Your task to perform on an android device: Go to Yahoo.com Image 0: 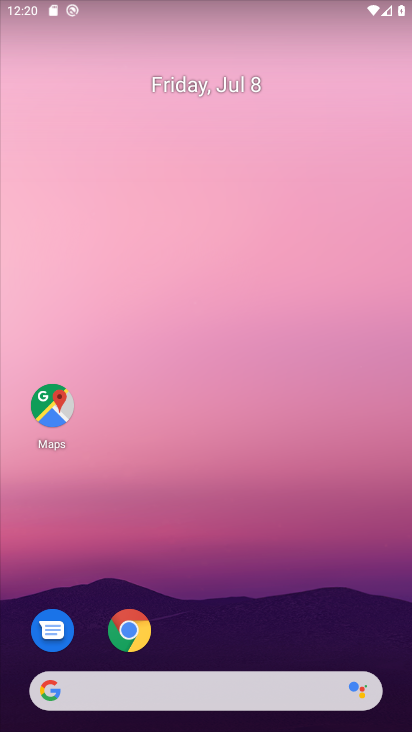
Step 0: click (131, 615)
Your task to perform on an android device: Go to Yahoo.com Image 1: 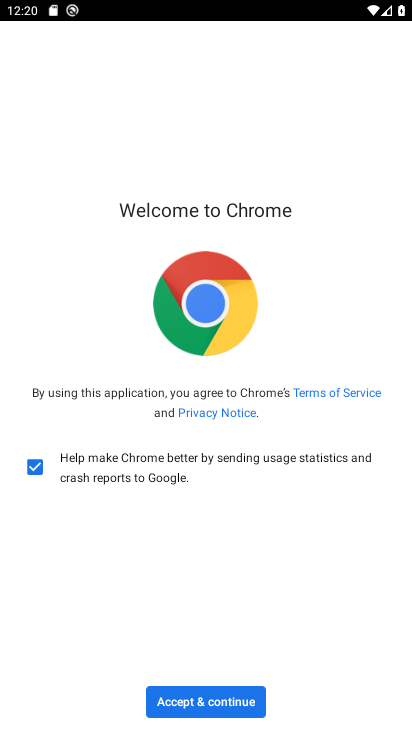
Step 1: click (177, 694)
Your task to perform on an android device: Go to Yahoo.com Image 2: 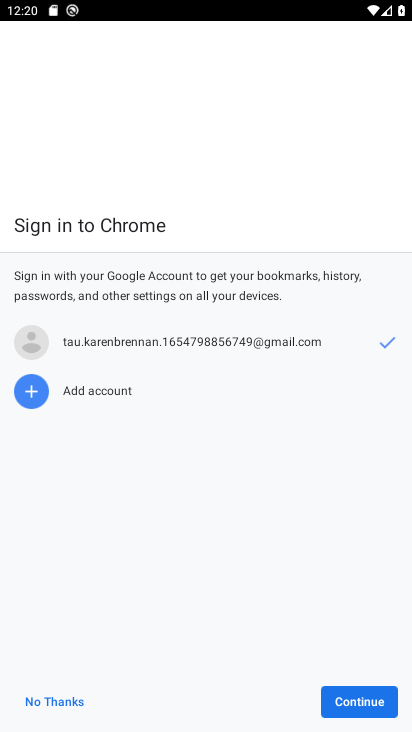
Step 2: click (386, 704)
Your task to perform on an android device: Go to Yahoo.com Image 3: 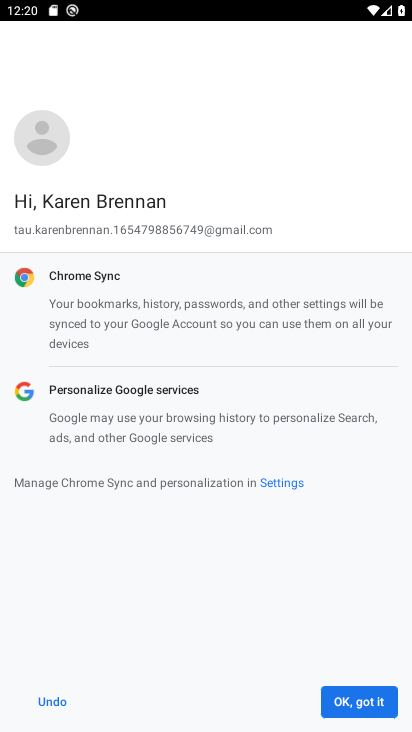
Step 3: click (386, 704)
Your task to perform on an android device: Go to Yahoo.com Image 4: 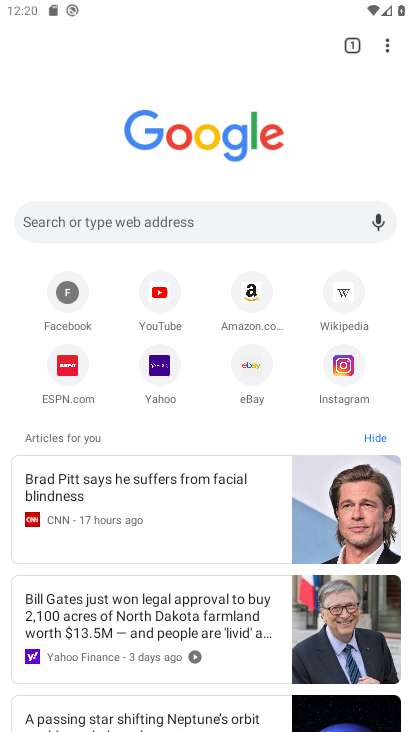
Step 4: click (161, 368)
Your task to perform on an android device: Go to Yahoo.com Image 5: 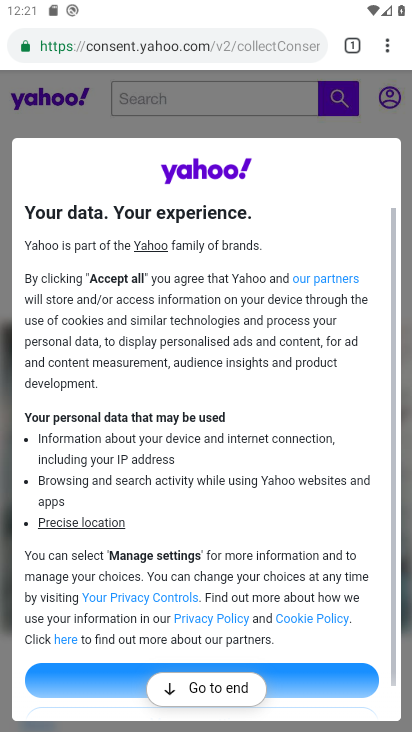
Step 5: task complete